Your task to perform on an android device: Go to Google maps Image 0: 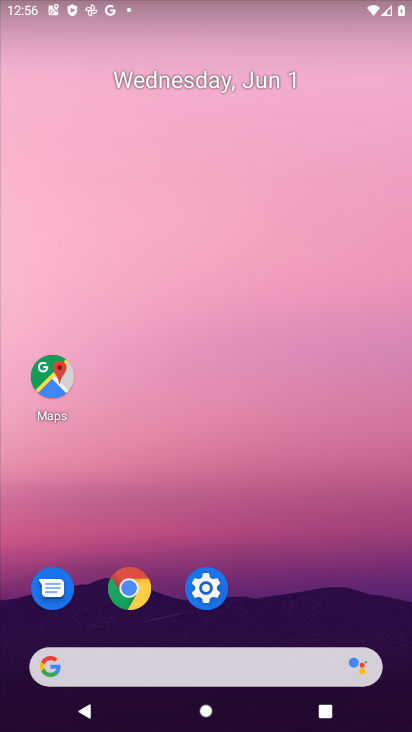
Step 0: click (65, 362)
Your task to perform on an android device: Go to Google maps Image 1: 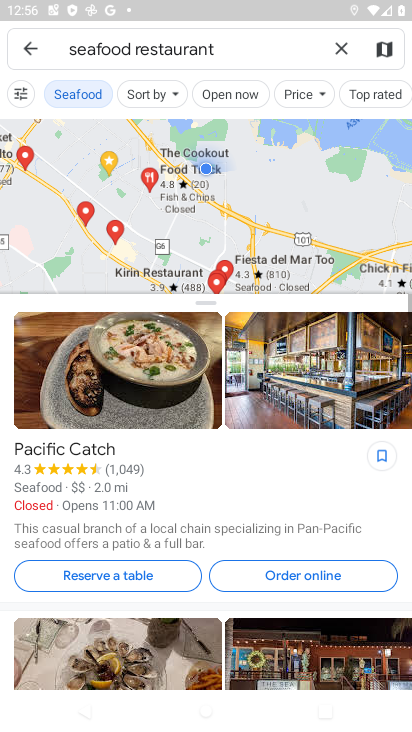
Step 1: click (24, 51)
Your task to perform on an android device: Go to Google maps Image 2: 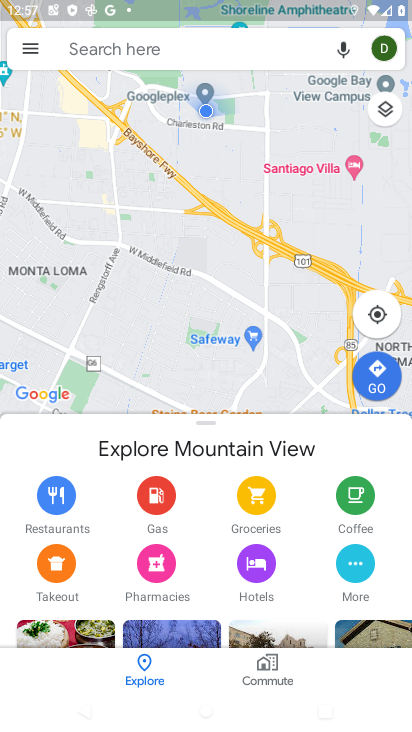
Step 2: task complete